Your task to perform on an android device: Open the calendar and show me this week's events Image 0: 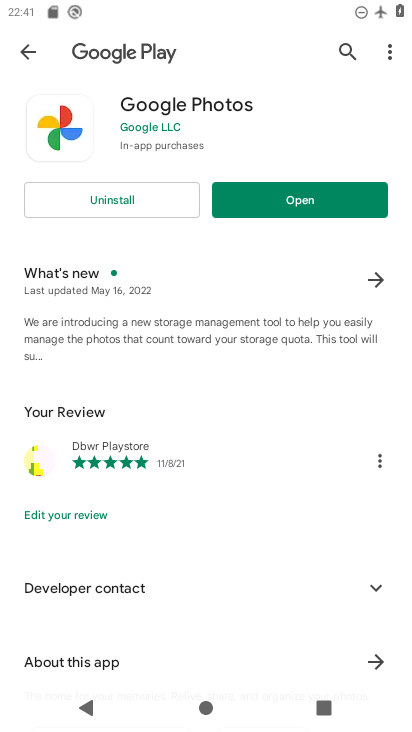
Step 0: press home button
Your task to perform on an android device: Open the calendar and show me this week's events Image 1: 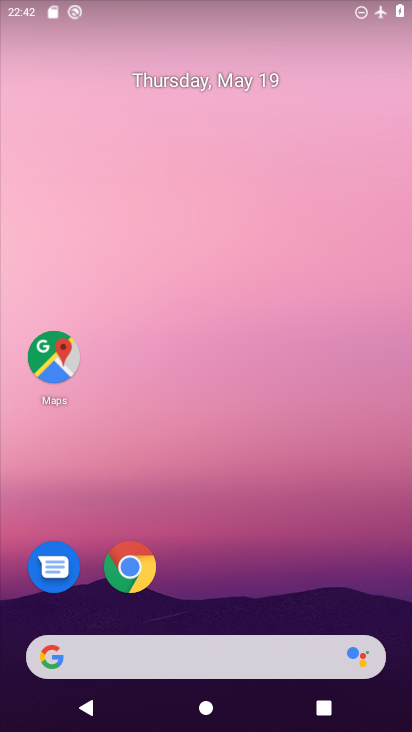
Step 1: drag from (217, 615) to (234, 174)
Your task to perform on an android device: Open the calendar and show me this week's events Image 2: 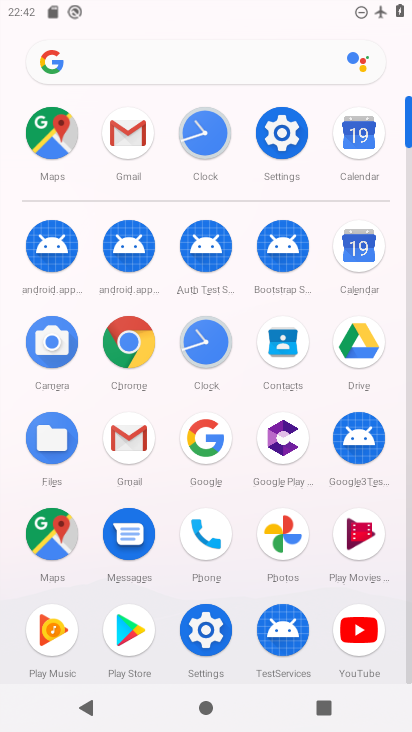
Step 2: click (361, 245)
Your task to perform on an android device: Open the calendar and show me this week's events Image 3: 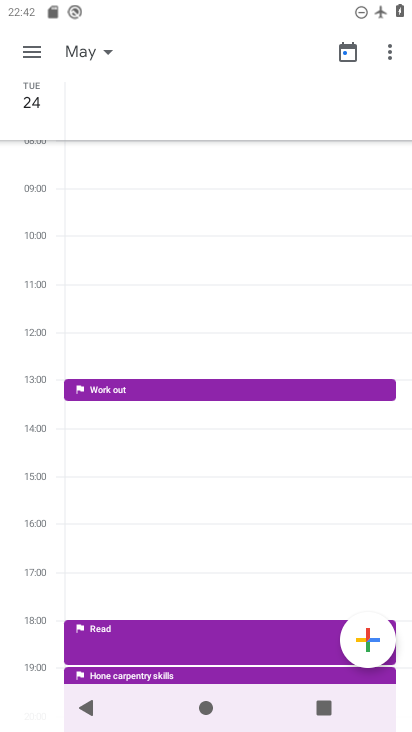
Step 3: click (38, 117)
Your task to perform on an android device: Open the calendar and show me this week's events Image 4: 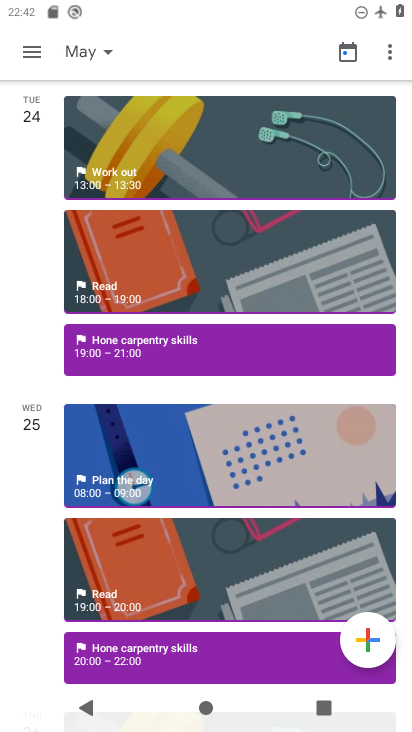
Step 4: click (28, 47)
Your task to perform on an android device: Open the calendar and show me this week's events Image 5: 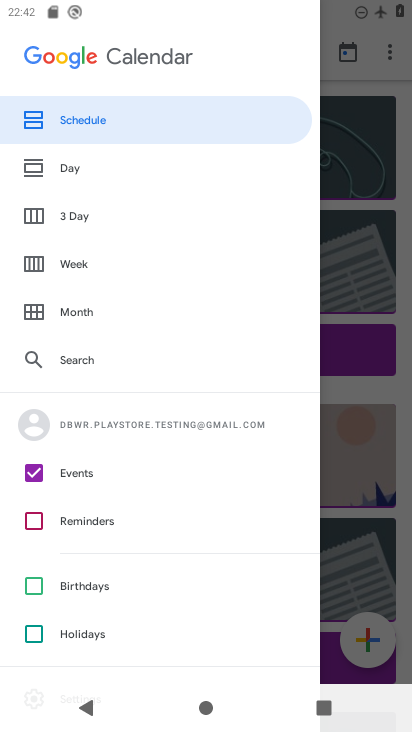
Step 5: click (100, 261)
Your task to perform on an android device: Open the calendar and show me this week's events Image 6: 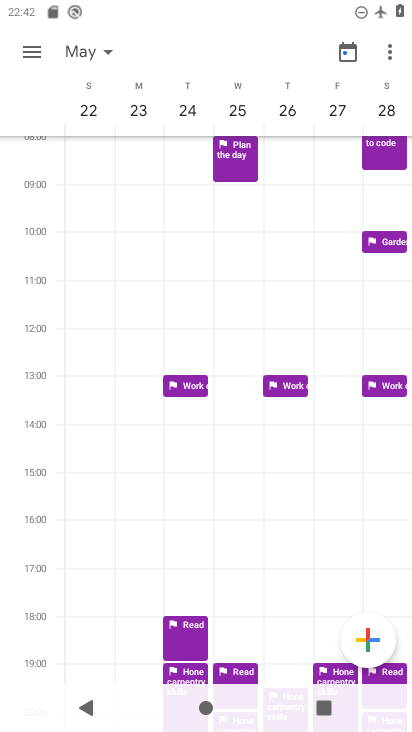
Step 6: drag from (85, 105) to (405, 101)
Your task to perform on an android device: Open the calendar and show me this week's events Image 7: 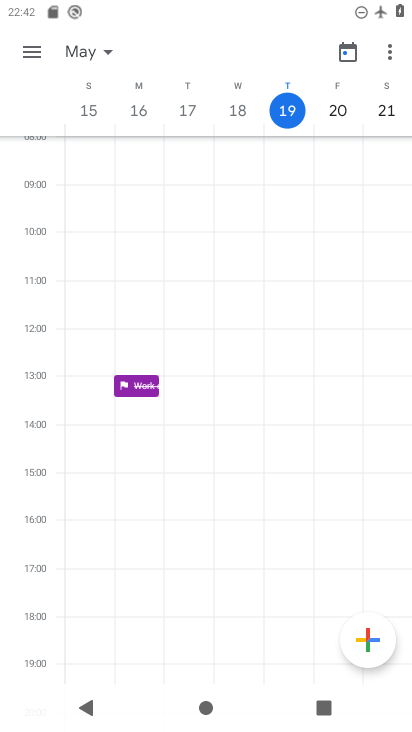
Step 7: click (290, 113)
Your task to perform on an android device: Open the calendar and show me this week's events Image 8: 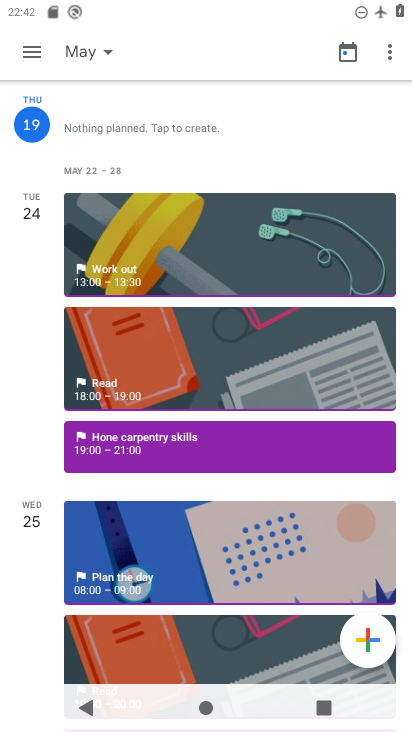
Step 8: click (46, 146)
Your task to perform on an android device: Open the calendar and show me this week's events Image 9: 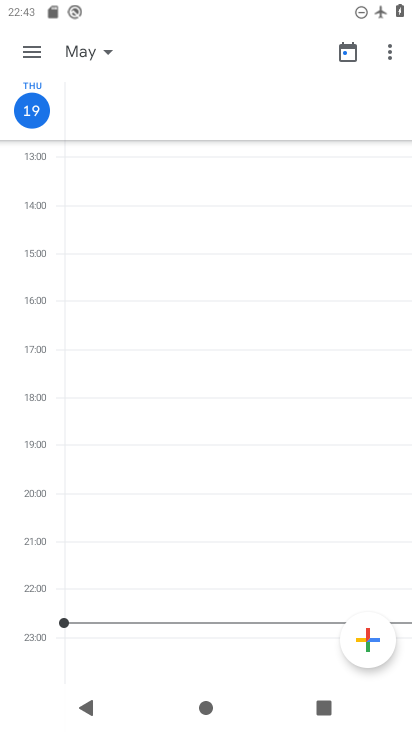
Step 9: click (50, 124)
Your task to perform on an android device: Open the calendar and show me this week's events Image 10: 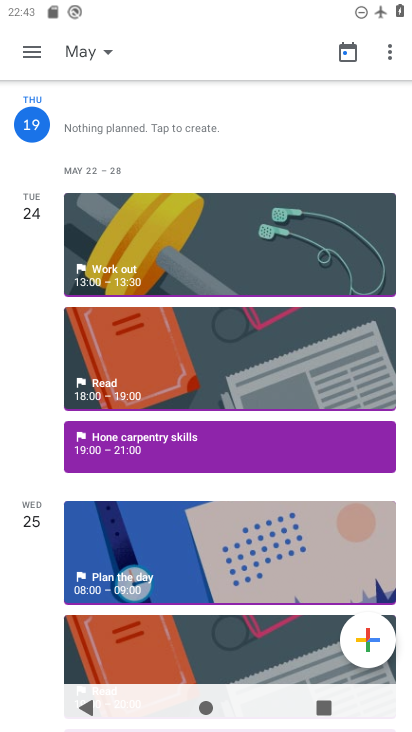
Step 10: click (49, 152)
Your task to perform on an android device: Open the calendar and show me this week's events Image 11: 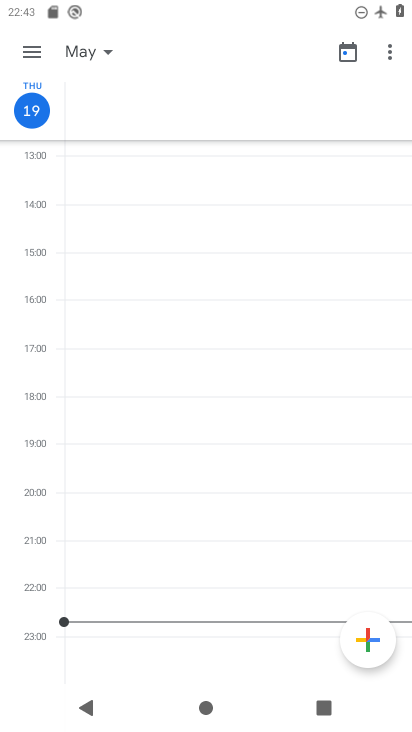
Step 11: task complete